Your task to perform on an android device: Go to internet settings Image 0: 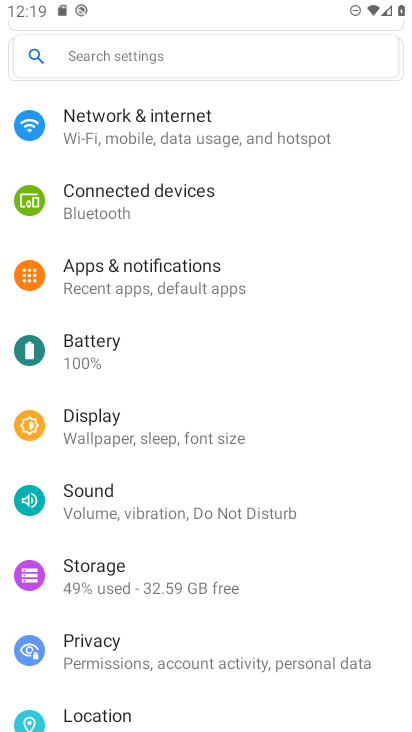
Step 0: click (200, 120)
Your task to perform on an android device: Go to internet settings Image 1: 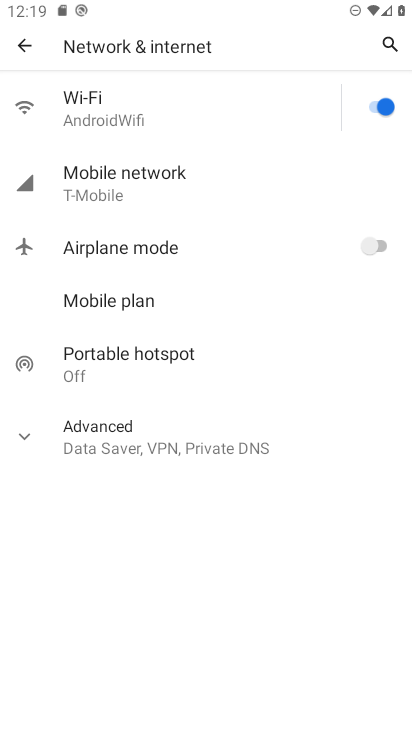
Step 1: task complete